Your task to perform on an android device: turn off javascript in the chrome app Image 0: 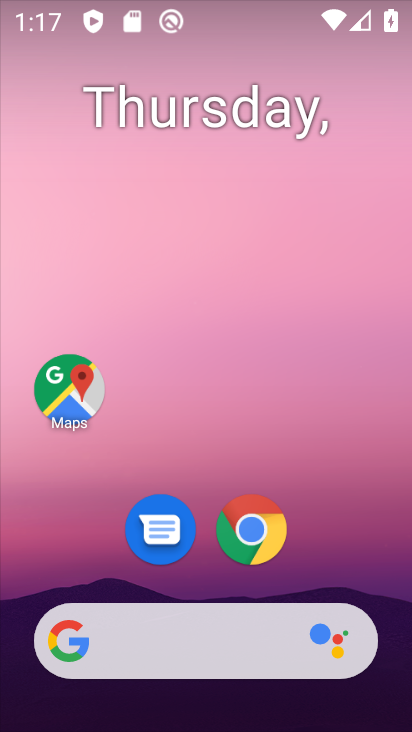
Step 0: click (254, 524)
Your task to perform on an android device: turn off javascript in the chrome app Image 1: 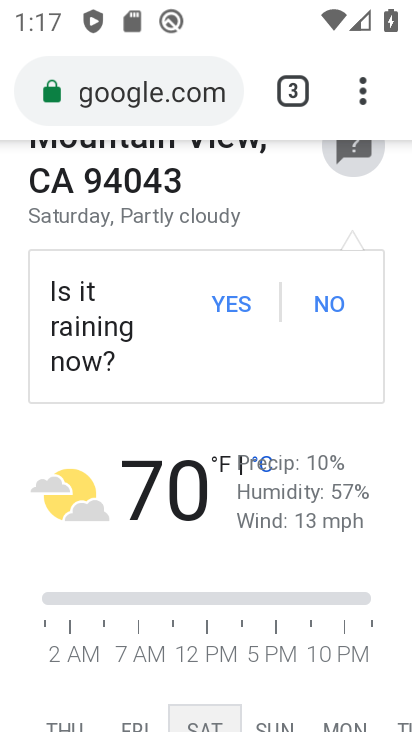
Step 1: press home button
Your task to perform on an android device: turn off javascript in the chrome app Image 2: 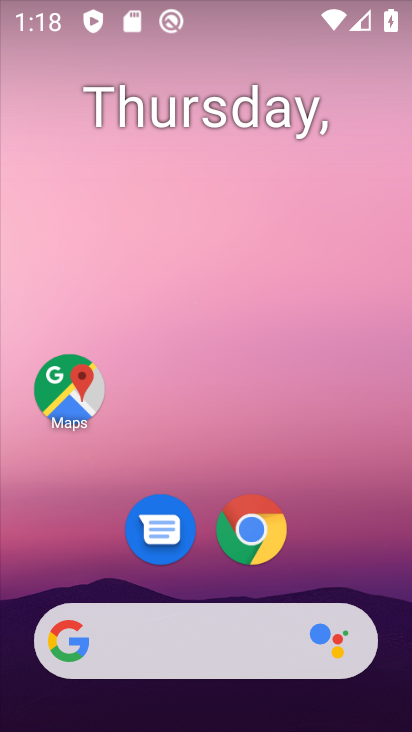
Step 2: click (254, 528)
Your task to perform on an android device: turn off javascript in the chrome app Image 3: 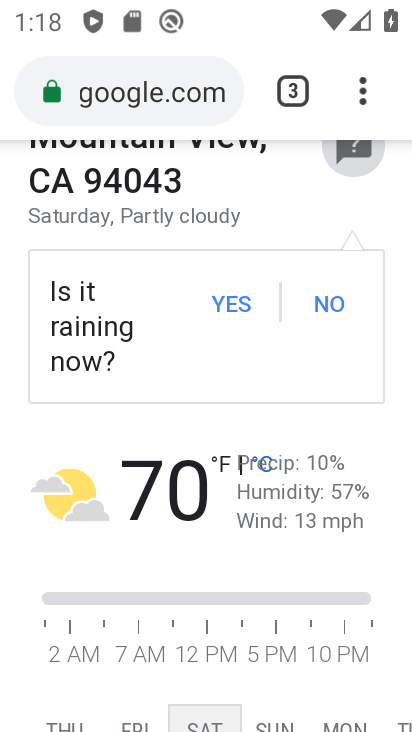
Step 3: drag from (364, 101) to (159, 554)
Your task to perform on an android device: turn off javascript in the chrome app Image 4: 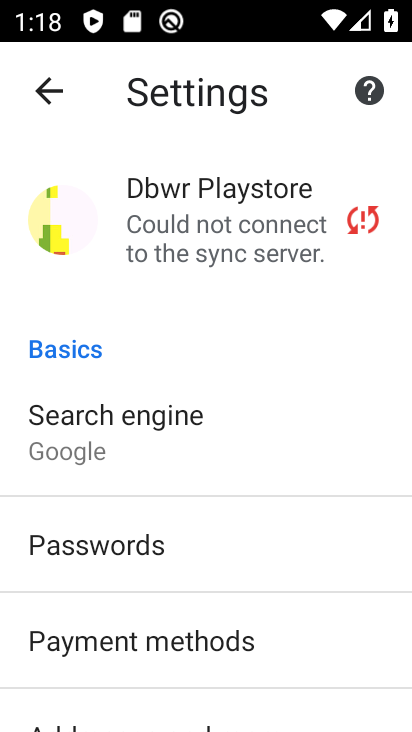
Step 4: drag from (161, 693) to (179, 328)
Your task to perform on an android device: turn off javascript in the chrome app Image 5: 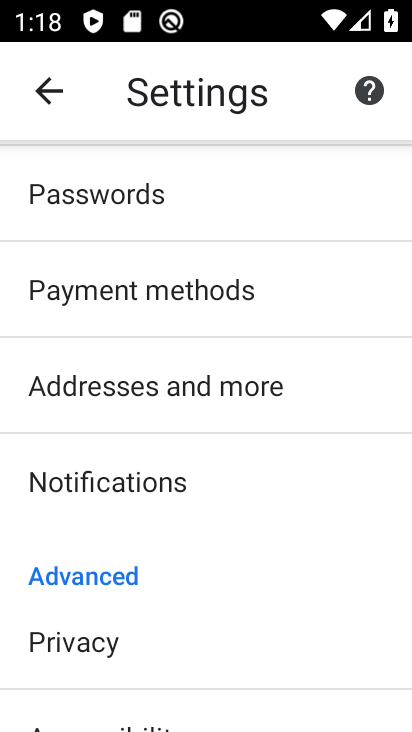
Step 5: drag from (151, 692) to (160, 299)
Your task to perform on an android device: turn off javascript in the chrome app Image 6: 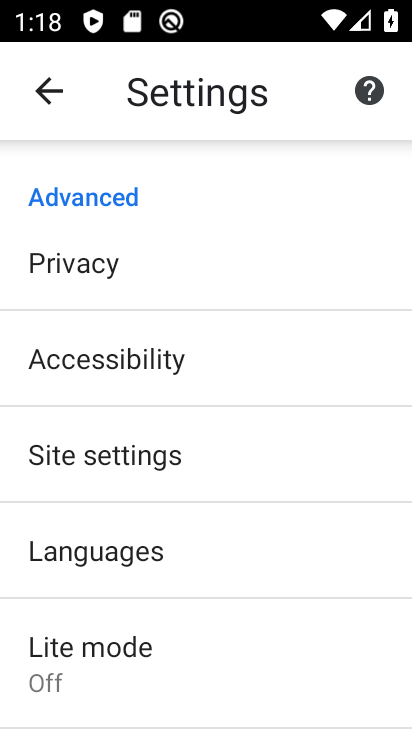
Step 6: click (115, 460)
Your task to perform on an android device: turn off javascript in the chrome app Image 7: 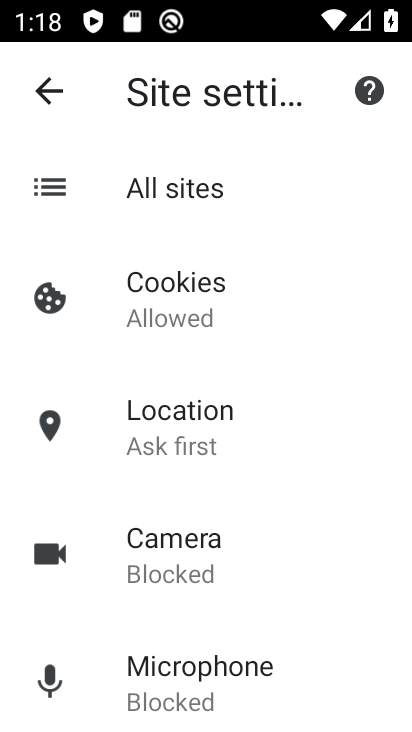
Step 7: drag from (165, 641) to (194, 235)
Your task to perform on an android device: turn off javascript in the chrome app Image 8: 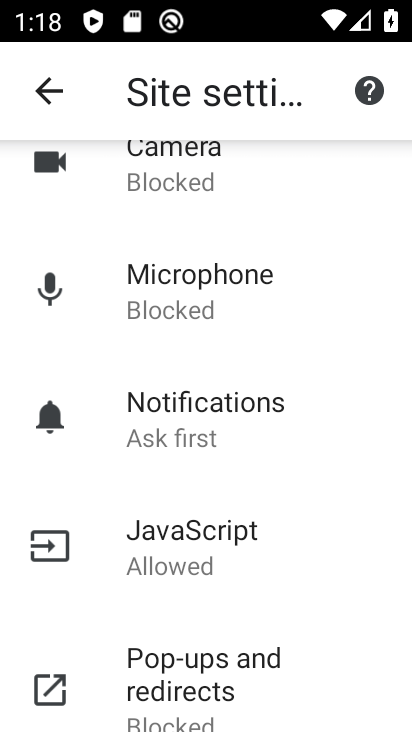
Step 8: drag from (181, 652) to (232, 267)
Your task to perform on an android device: turn off javascript in the chrome app Image 9: 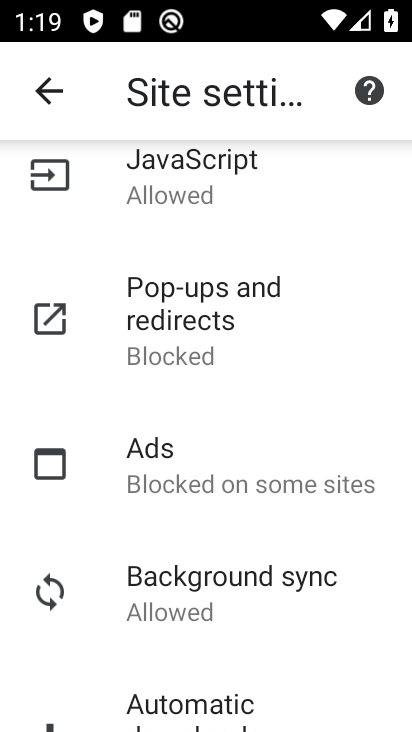
Step 9: click (179, 678)
Your task to perform on an android device: turn off javascript in the chrome app Image 10: 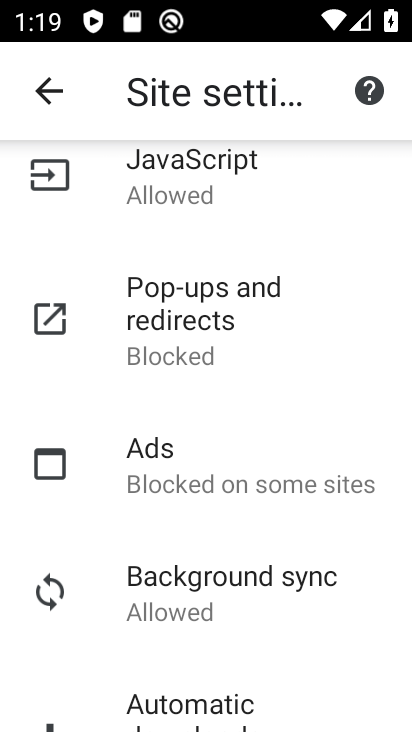
Step 10: drag from (198, 244) to (212, 454)
Your task to perform on an android device: turn off javascript in the chrome app Image 11: 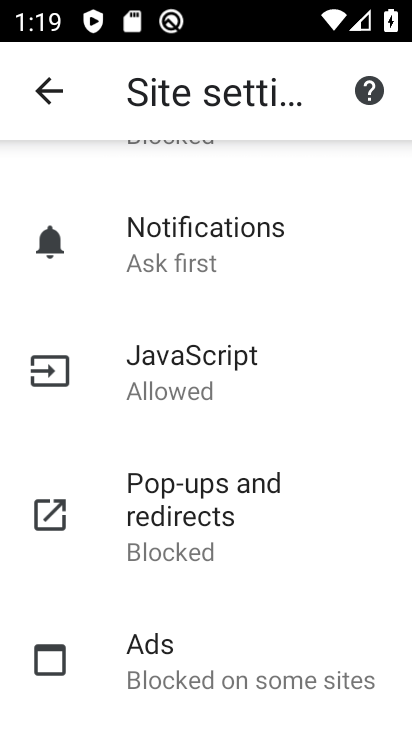
Step 11: click (160, 377)
Your task to perform on an android device: turn off javascript in the chrome app Image 12: 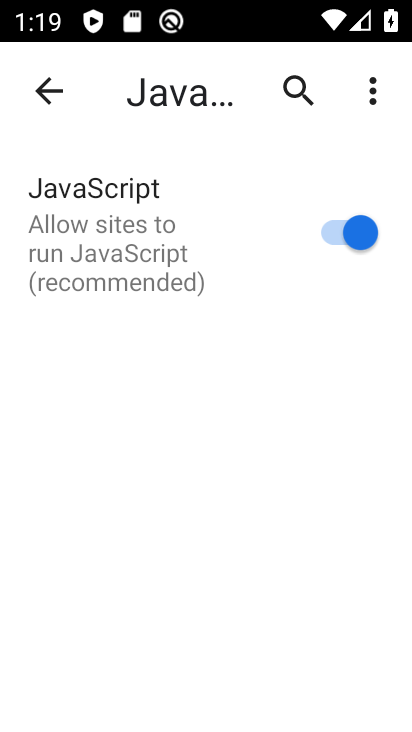
Step 12: click (332, 232)
Your task to perform on an android device: turn off javascript in the chrome app Image 13: 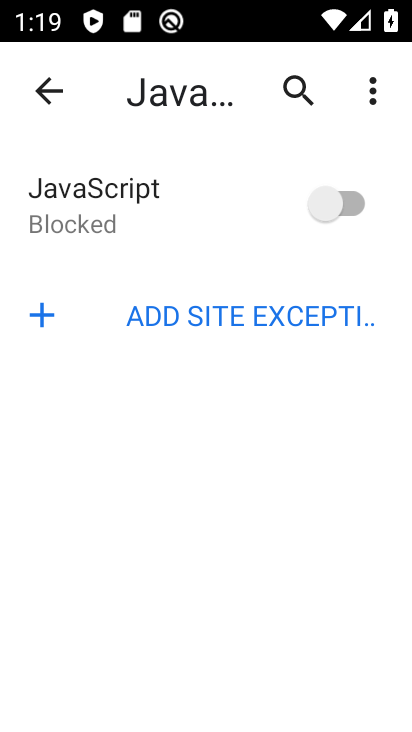
Step 13: task complete